Your task to perform on an android device: delete the emails in spam in the gmail app Image 0: 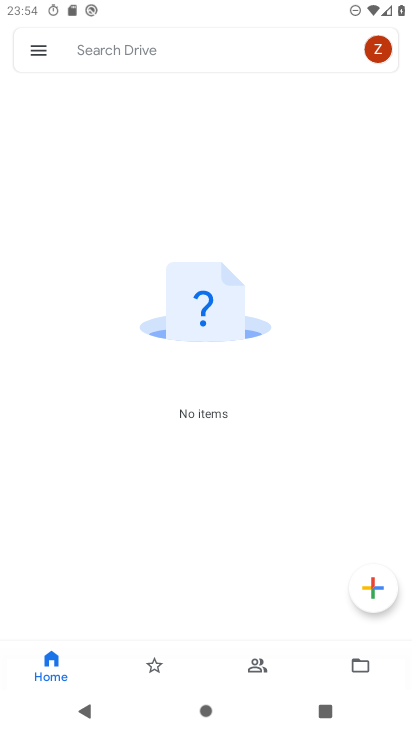
Step 0: press home button
Your task to perform on an android device: delete the emails in spam in the gmail app Image 1: 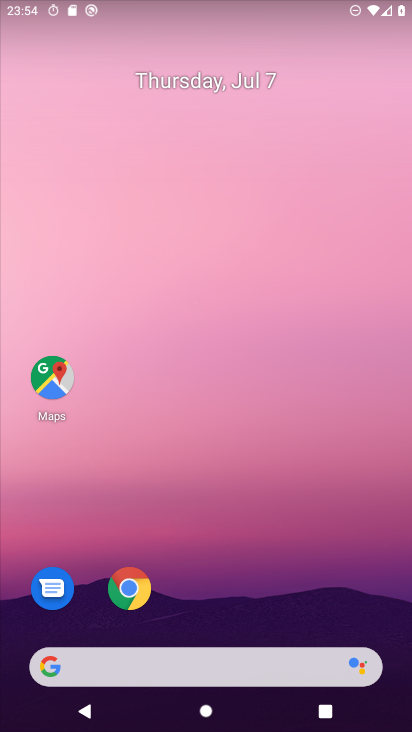
Step 1: drag from (252, 607) to (253, 144)
Your task to perform on an android device: delete the emails in spam in the gmail app Image 2: 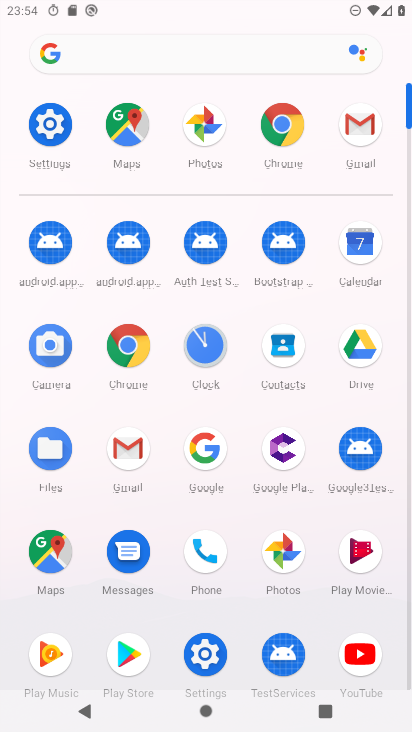
Step 2: click (365, 117)
Your task to perform on an android device: delete the emails in spam in the gmail app Image 3: 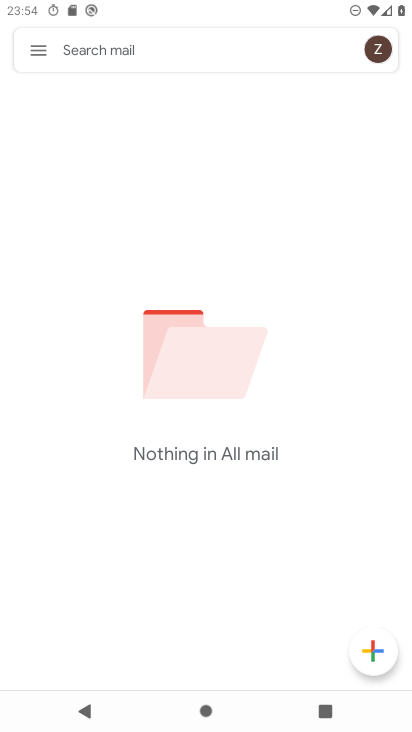
Step 3: click (44, 47)
Your task to perform on an android device: delete the emails in spam in the gmail app Image 4: 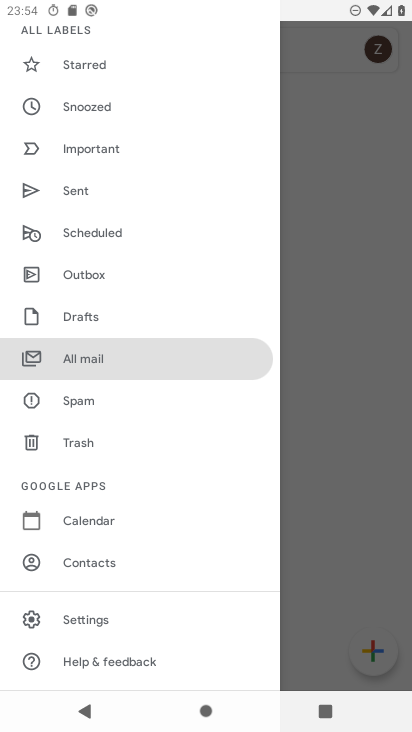
Step 4: click (108, 406)
Your task to perform on an android device: delete the emails in spam in the gmail app Image 5: 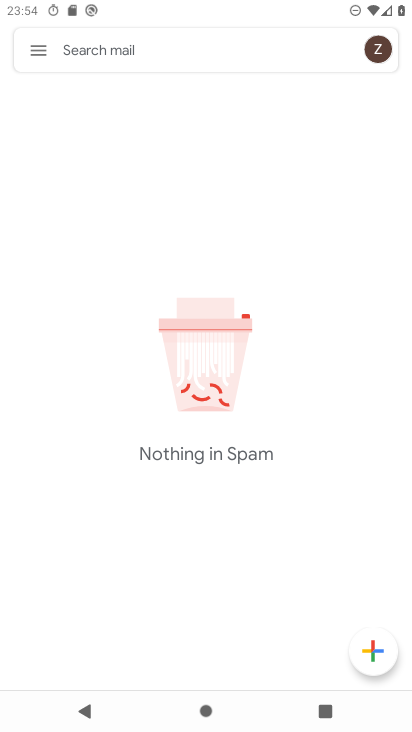
Step 5: task complete